Your task to perform on an android device: turn on airplane mode Image 0: 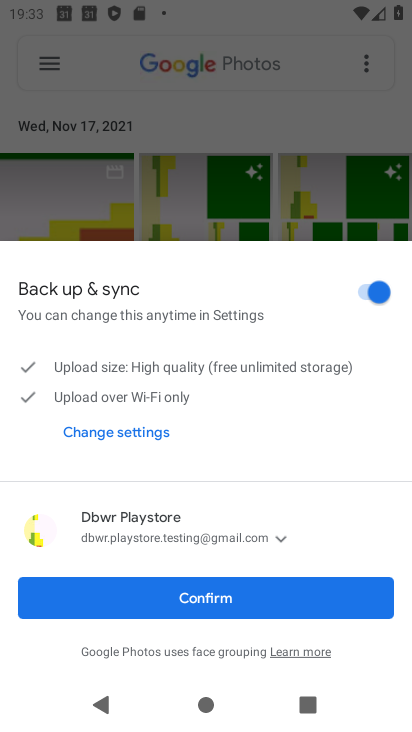
Step 0: press home button
Your task to perform on an android device: turn on airplane mode Image 1: 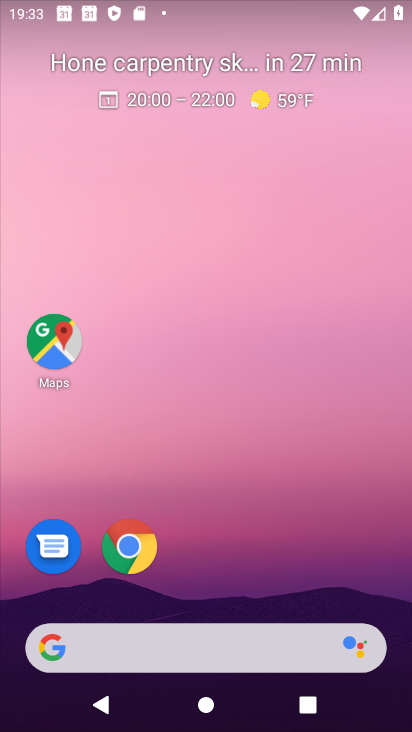
Step 1: drag from (358, 6) to (242, 598)
Your task to perform on an android device: turn on airplane mode Image 2: 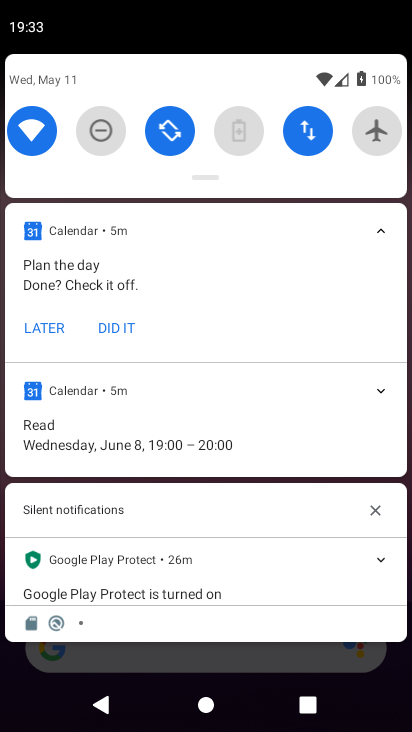
Step 2: click (386, 123)
Your task to perform on an android device: turn on airplane mode Image 3: 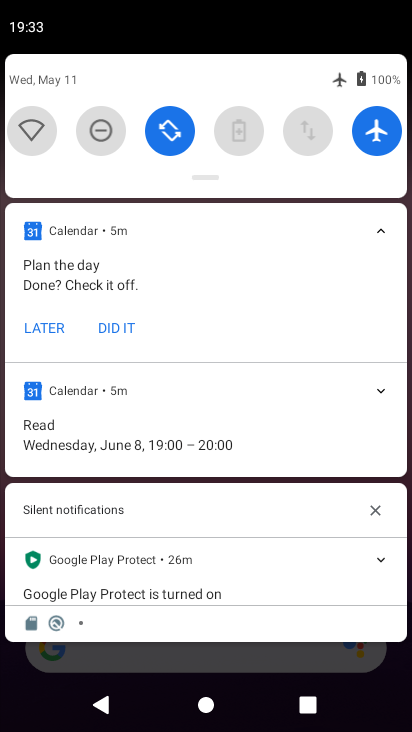
Step 3: task complete